Your task to perform on an android device: Check my email inbox Image 0: 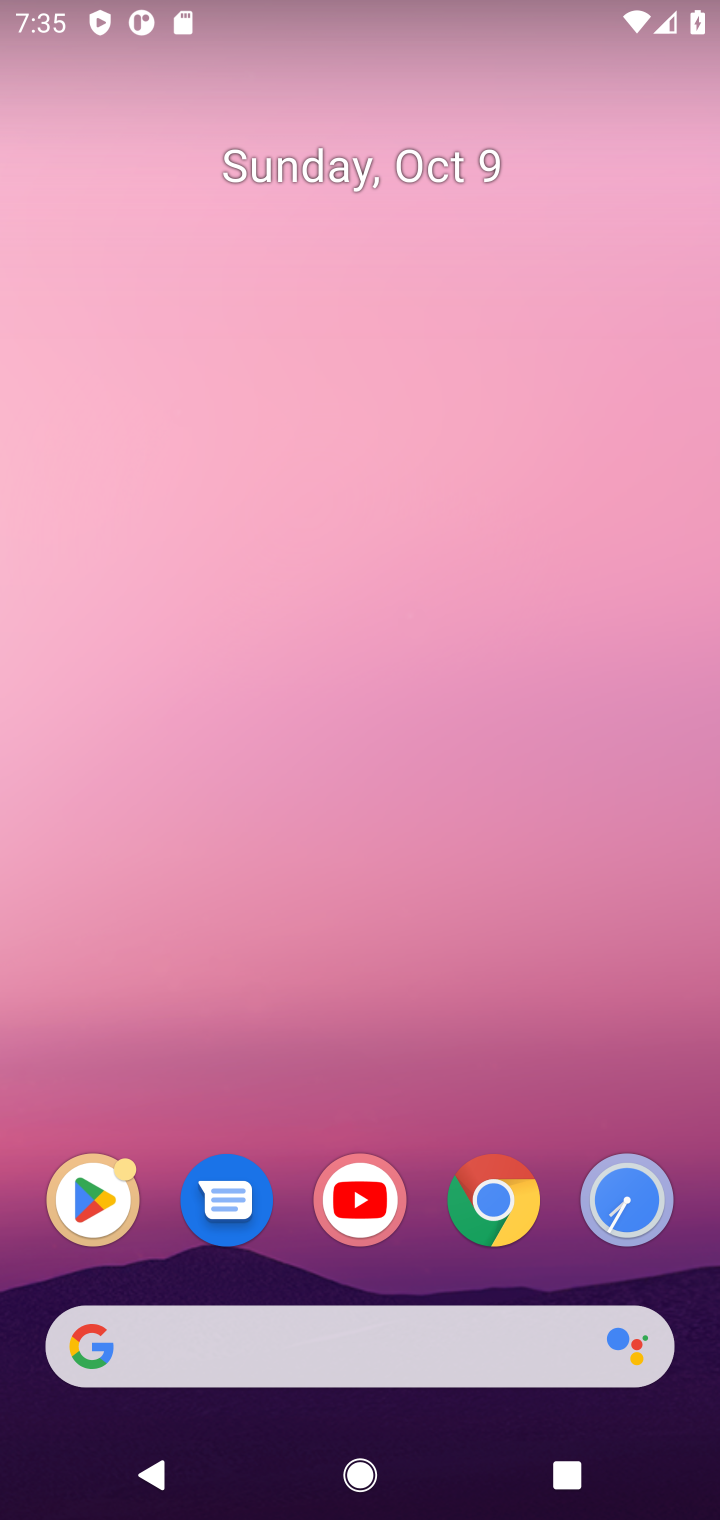
Step 0: click (599, 862)
Your task to perform on an android device: Check my email inbox Image 1: 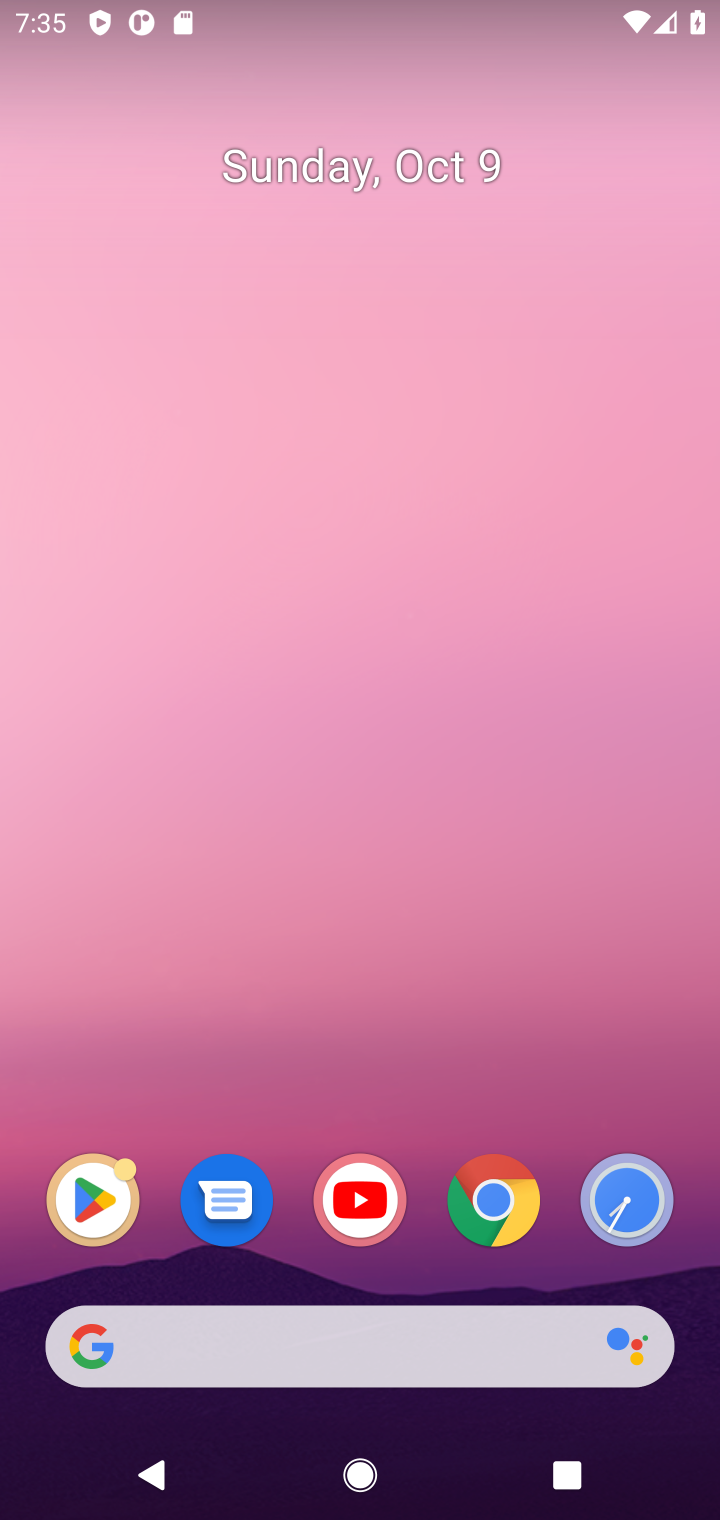
Step 1: drag from (454, 1122) to (523, 556)
Your task to perform on an android device: Check my email inbox Image 2: 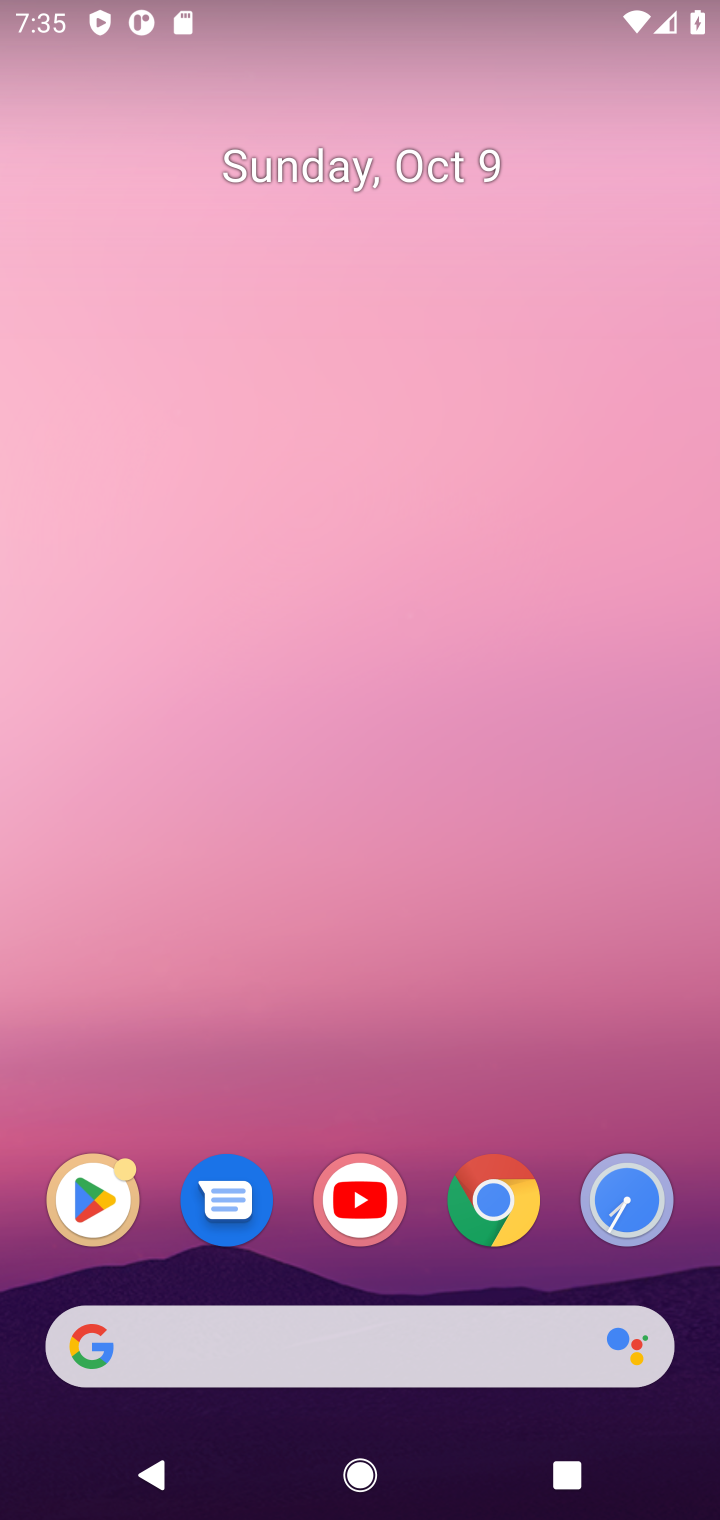
Step 2: drag from (421, 1037) to (458, 397)
Your task to perform on an android device: Check my email inbox Image 3: 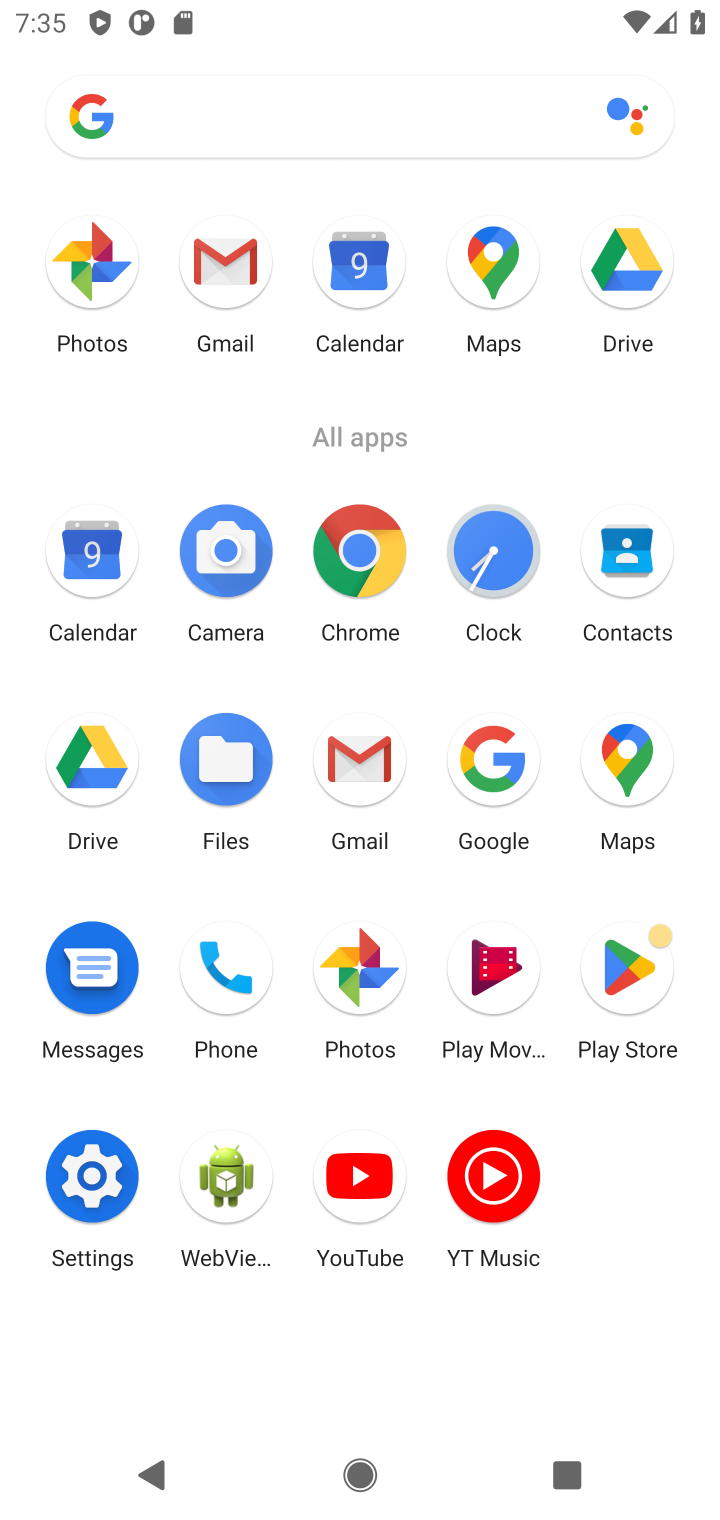
Step 3: click (222, 297)
Your task to perform on an android device: Check my email inbox Image 4: 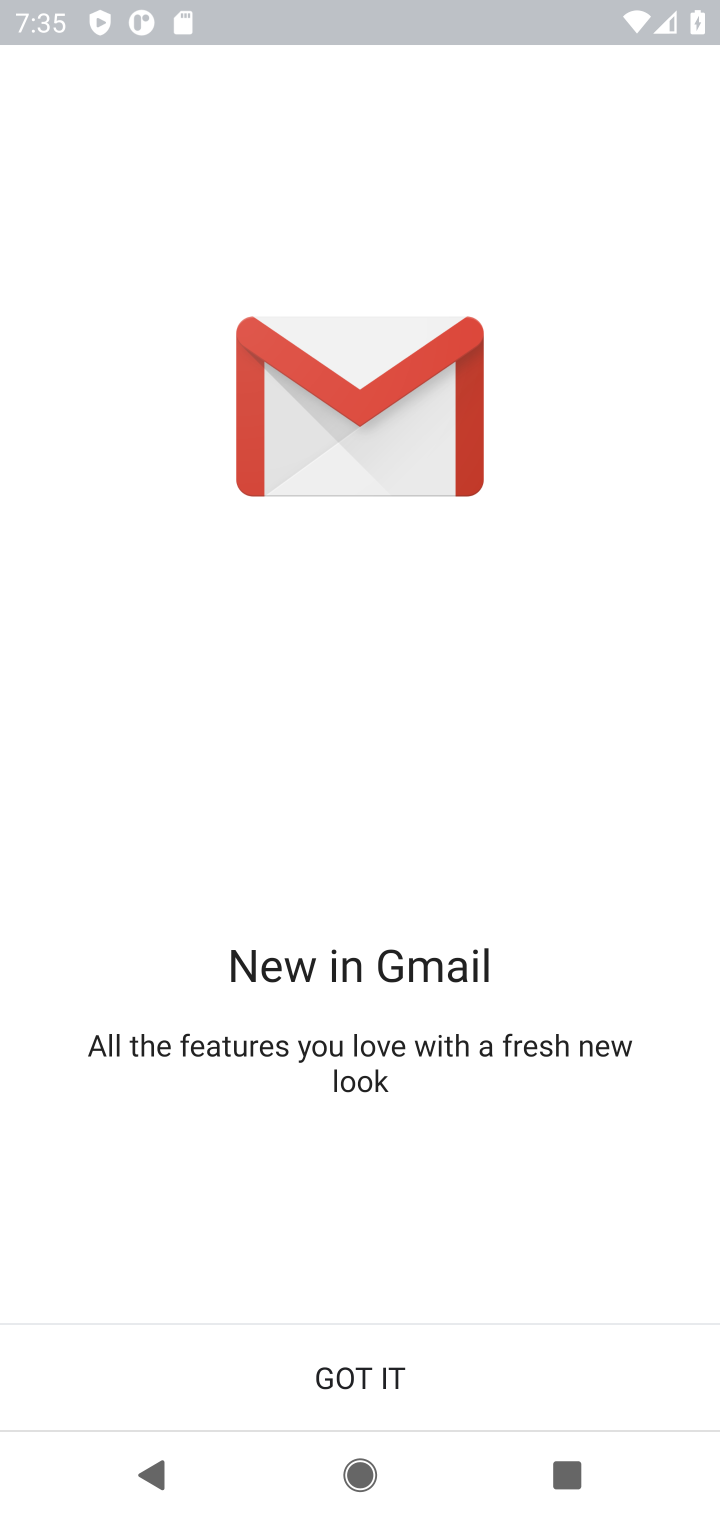
Step 4: click (405, 1367)
Your task to perform on an android device: Check my email inbox Image 5: 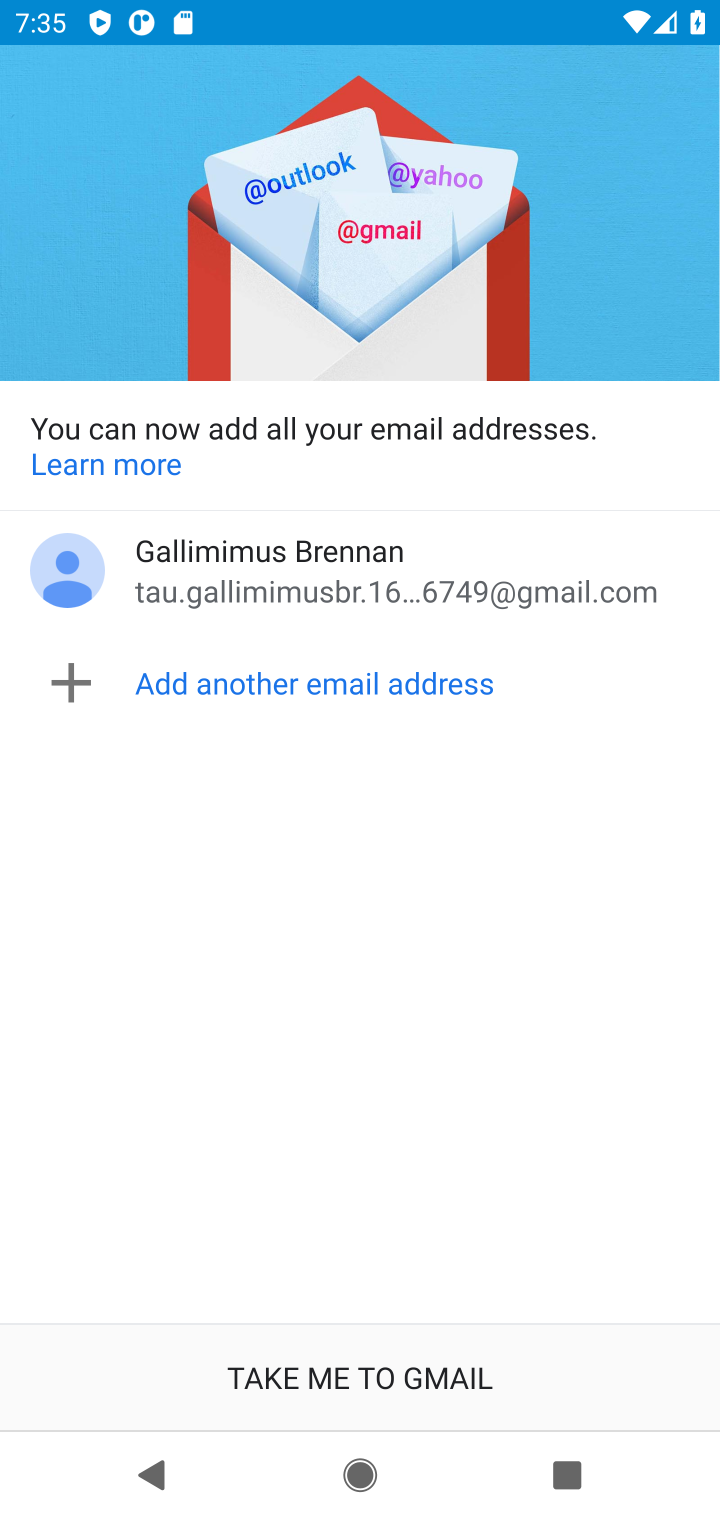
Step 5: click (462, 1373)
Your task to perform on an android device: Check my email inbox Image 6: 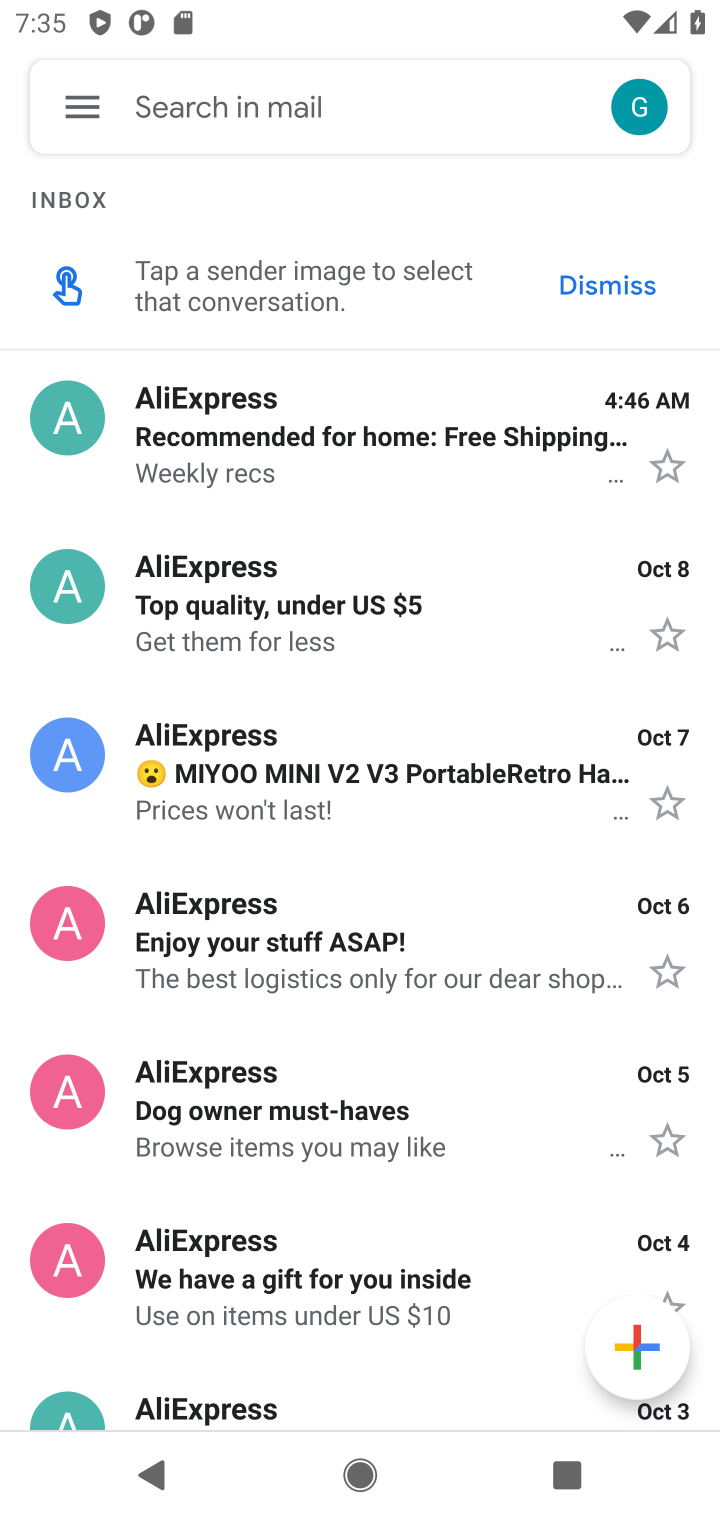
Step 6: click (83, 103)
Your task to perform on an android device: Check my email inbox Image 7: 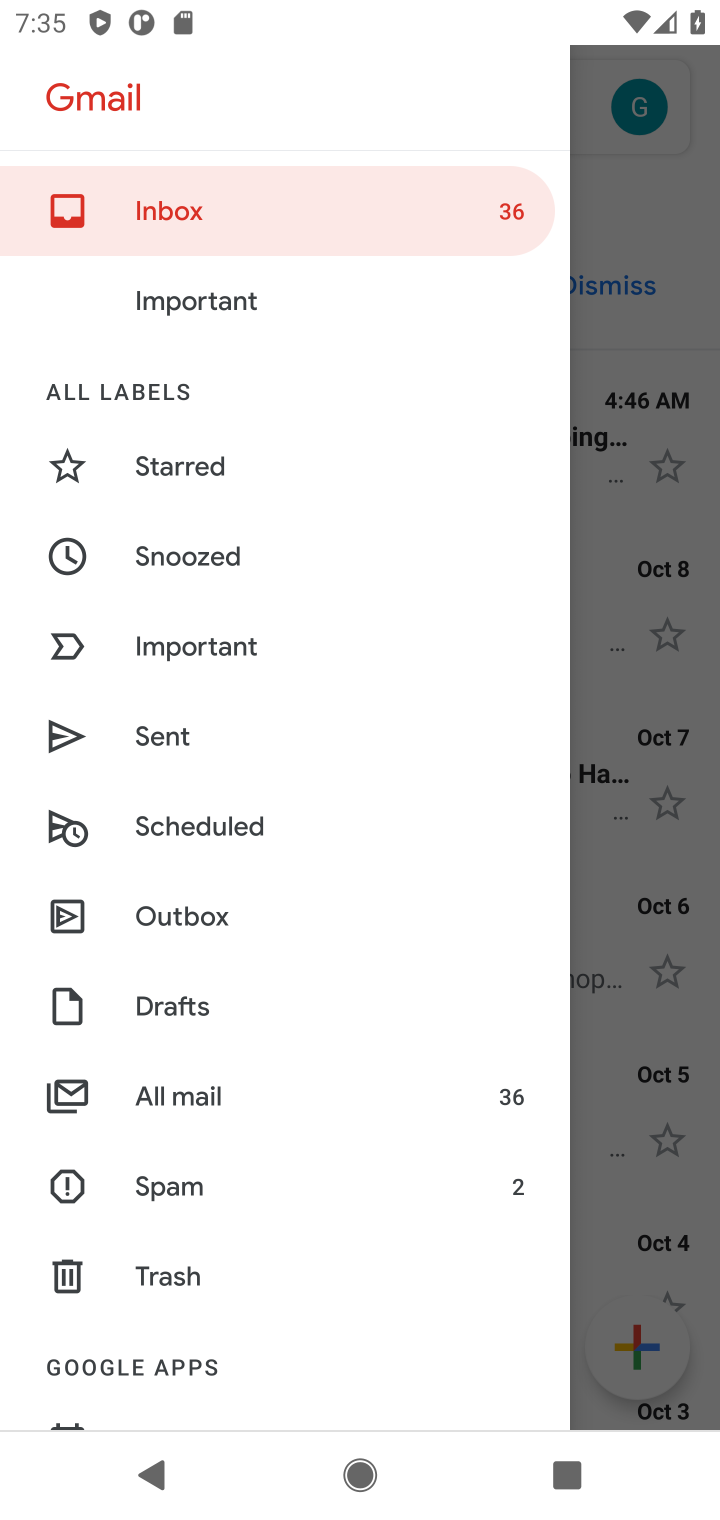
Step 7: click (147, 213)
Your task to perform on an android device: Check my email inbox Image 8: 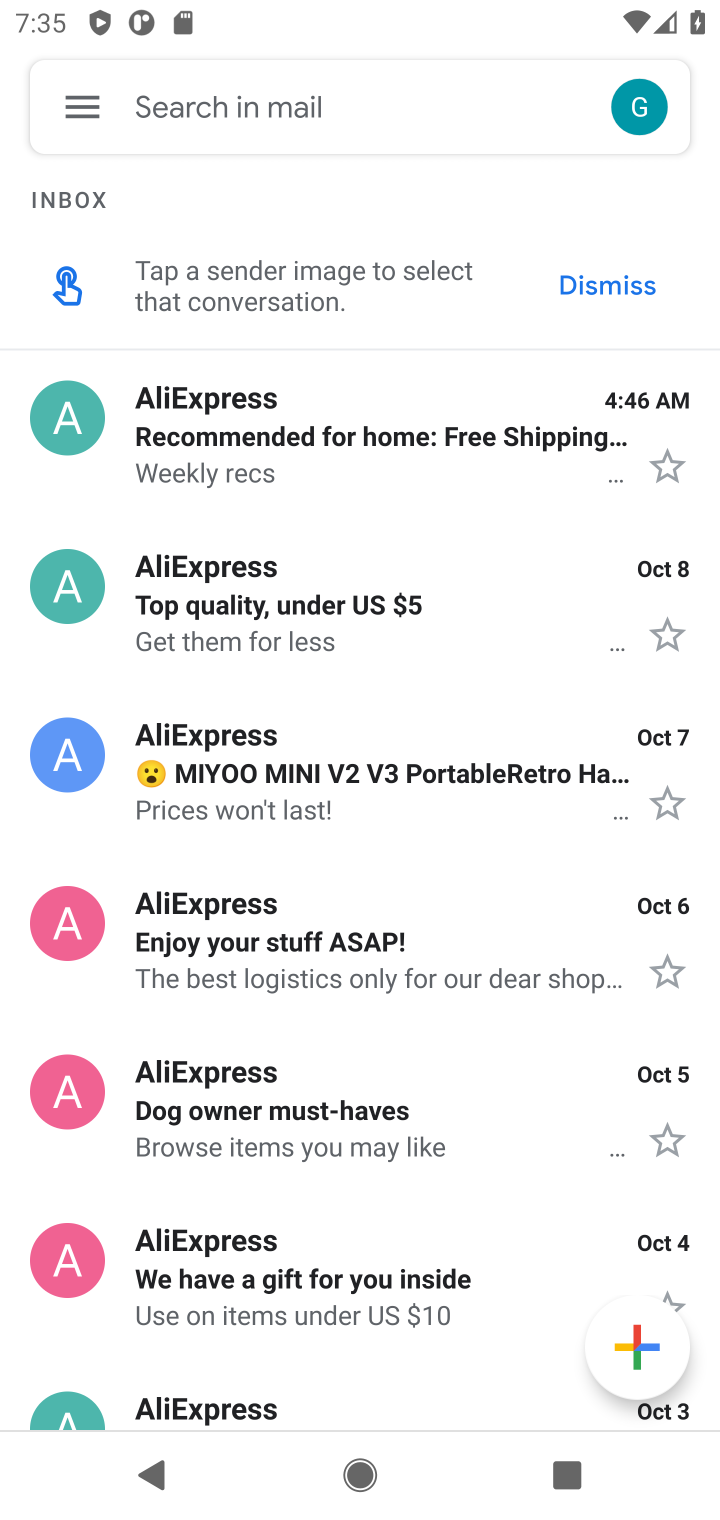
Step 8: task complete